Your task to perform on an android device: Open the calendar and show me this week's events? Image 0: 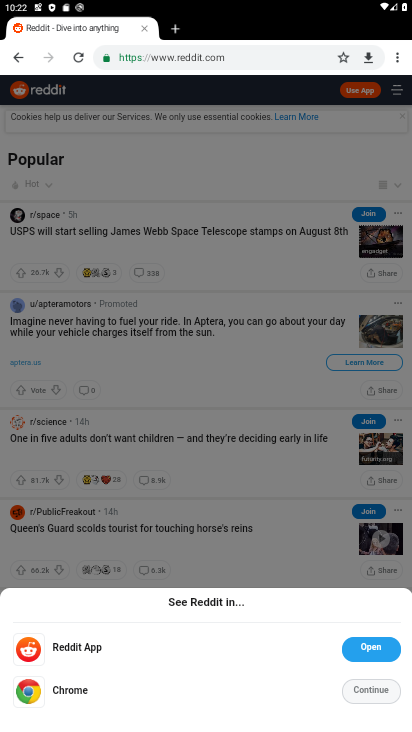
Step 0: press home button
Your task to perform on an android device: Open the calendar and show me this week's events? Image 1: 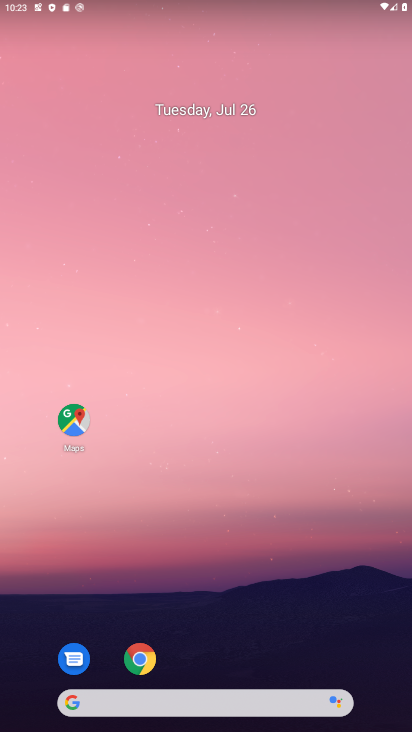
Step 1: drag from (281, 671) to (254, 43)
Your task to perform on an android device: Open the calendar and show me this week's events? Image 2: 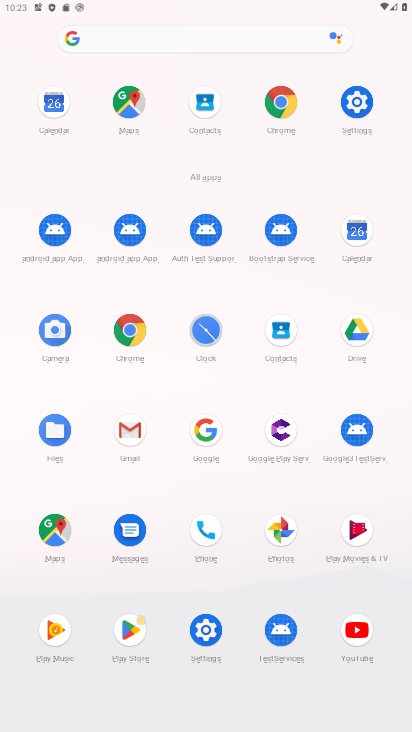
Step 2: click (379, 230)
Your task to perform on an android device: Open the calendar and show me this week's events? Image 3: 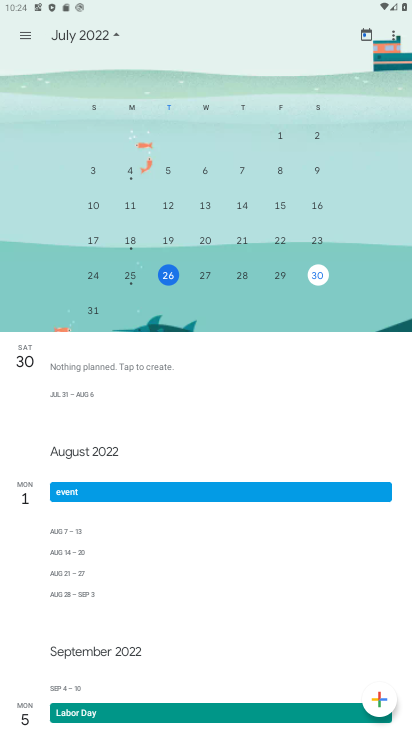
Step 3: drag from (364, 208) to (39, 258)
Your task to perform on an android device: Open the calendar and show me this week's events? Image 4: 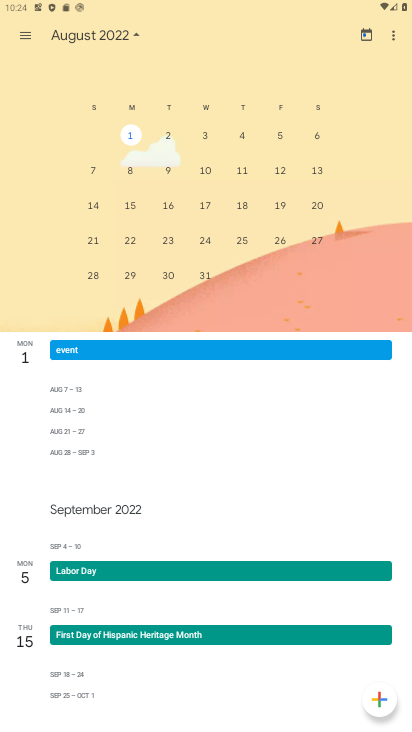
Step 4: drag from (112, 202) to (411, 284)
Your task to perform on an android device: Open the calendar and show me this week's events? Image 5: 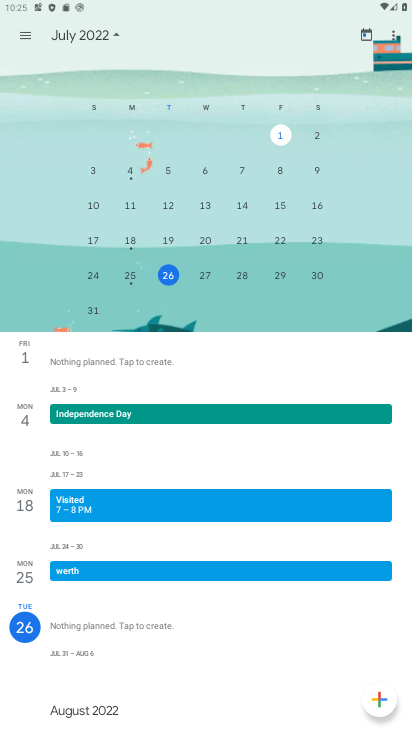
Step 5: click (326, 271)
Your task to perform on an android device: Open the calendar and show me this week's events? Image 6: 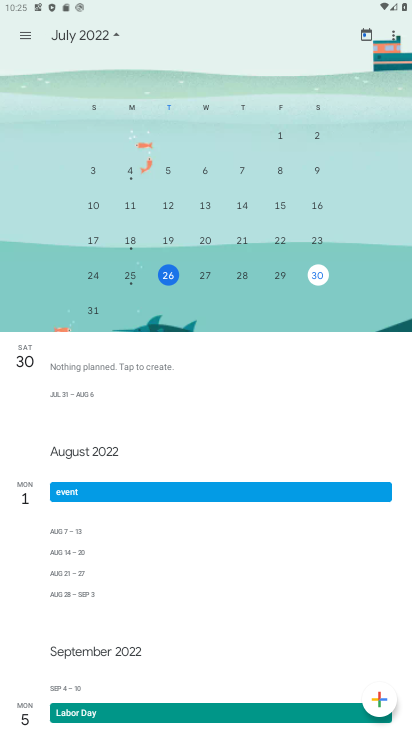
Step 6: task complete